Your task to perform on an android device: remove spam from my inbox in the gmail app Image 0: 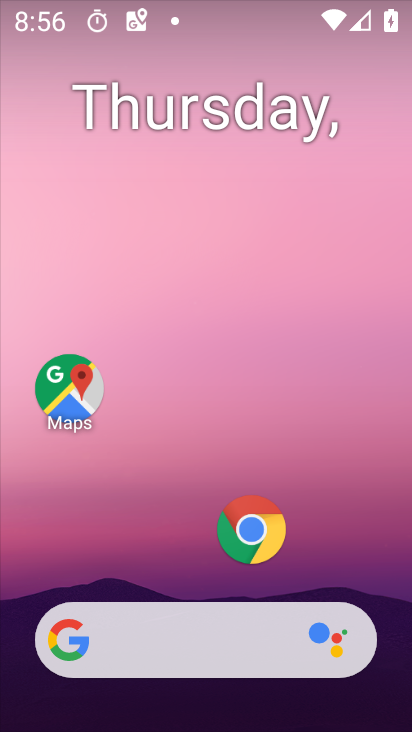
Step 0: press home button
Your task to perform on an android device: remove spam from my inbox in the gmail app Image 1: 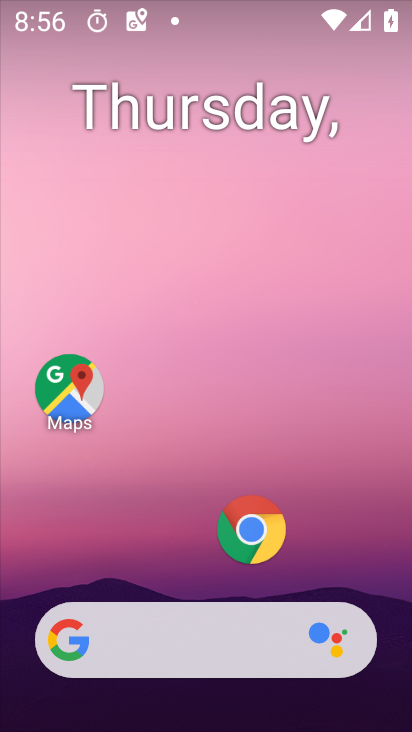
Step 1: drag from (189, 580) to (187, 93)
Your task to perform on an android device: remove spam from my inbox in the gmail app Image 2: 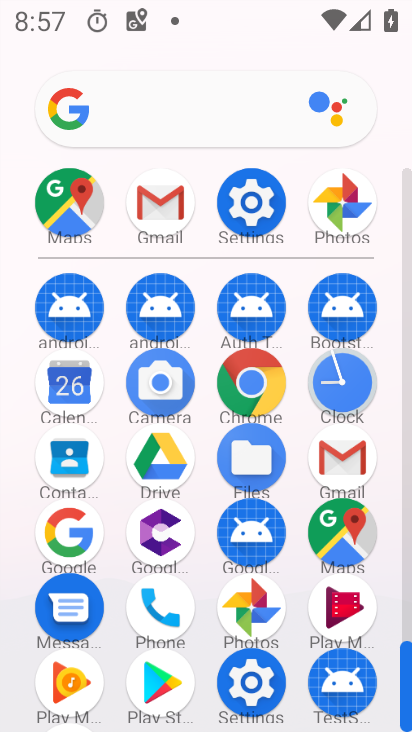
Step 2: click (337, 451)
Your task to perform on an android device: remove spam from my inbox in the gmail app Image 3: 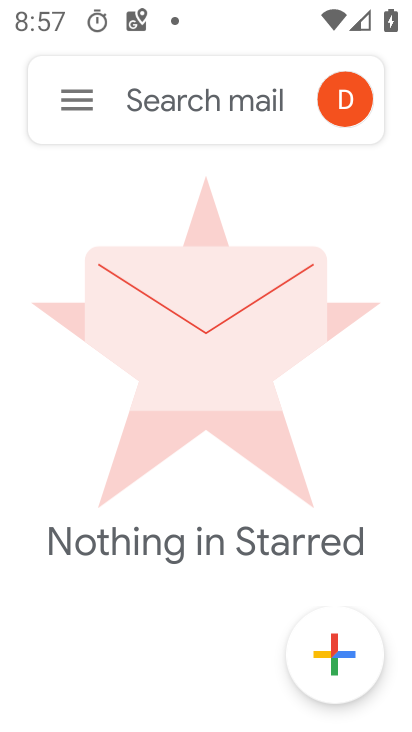
Step 3: press home button
Your task to perform on an android device: remove spam from my inbox in the gmail app Image 4: 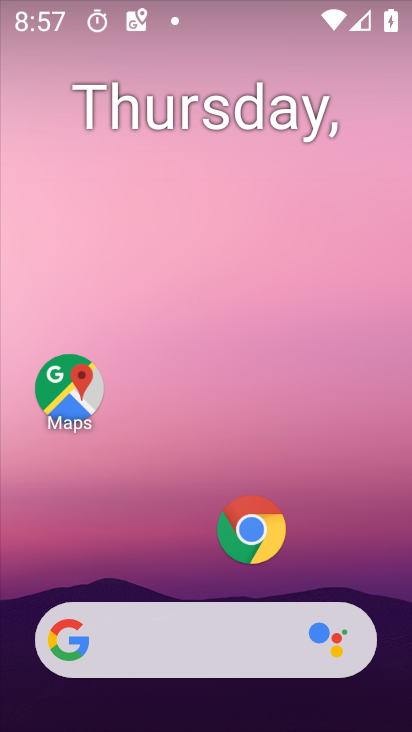
Step 4: drag from (198, 572) to (190, 83)
Your task to perform on an android device: remove spam from my inbox in the gmail app Image 5: 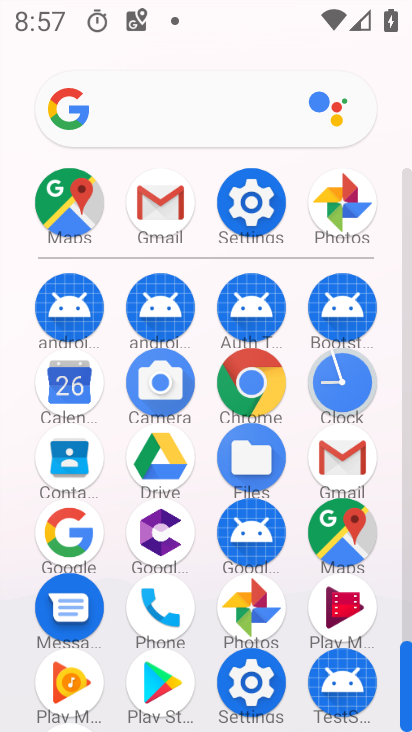
Step 5: drag from (201, 310) to (230, 67)
Your task to perform on an android device: remove spam from my inbox in the gmail app Image 6: 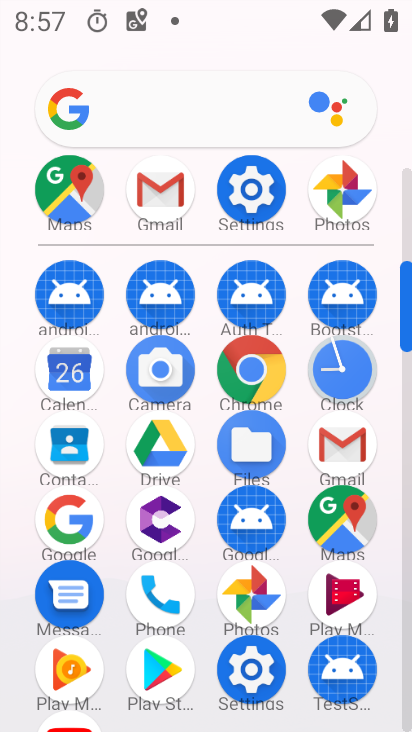
Step 6: click (159, 182)
Your task to perform on an android device: remove spam from my inbox in the gmail app Image 7: 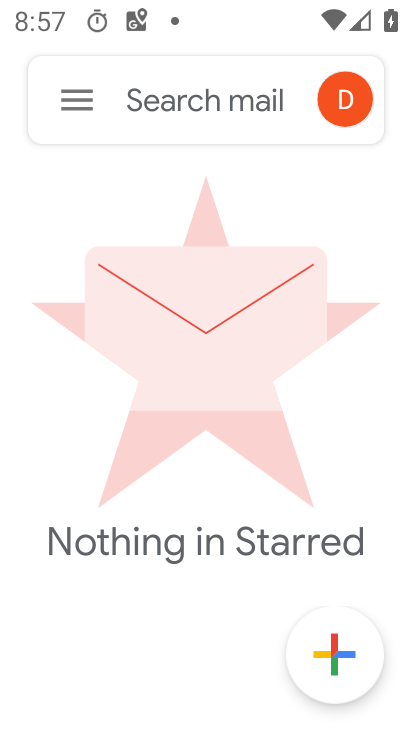
Step 7: click (65, 94)
Your task to perform on an android device: remove spam from my inbox in the gmail app Image 8: 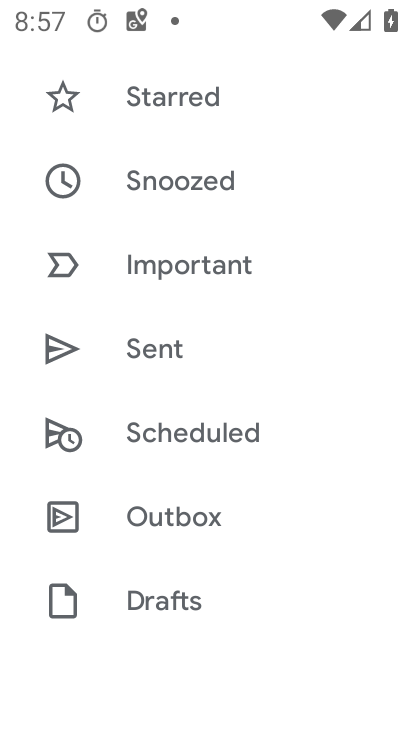
Step 8: drag from (181, 582) to (195, 124)
Your task to perform on an android device: remove spam from my inbox in the gmail app Image 9: 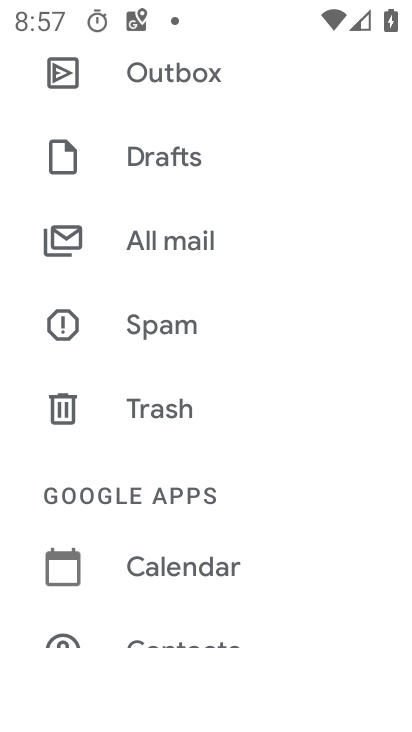
Step 9: click (205, 322)
Your task to perform on an android device: remove spam from my inbox in the gmail app Image 10: 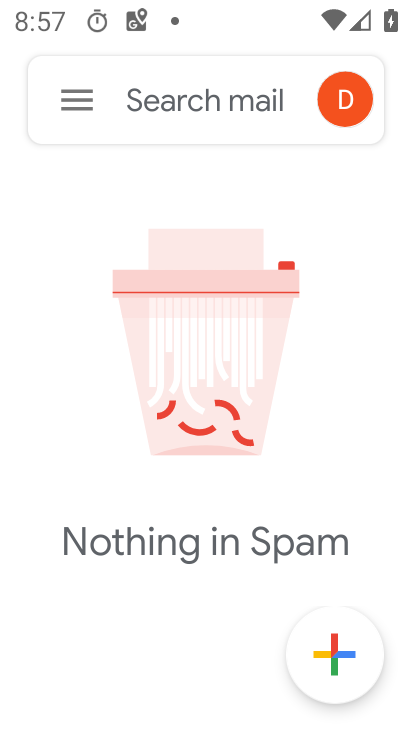
Step 10: task complete